Your task to perform on an android device: turn off location history Image 0: 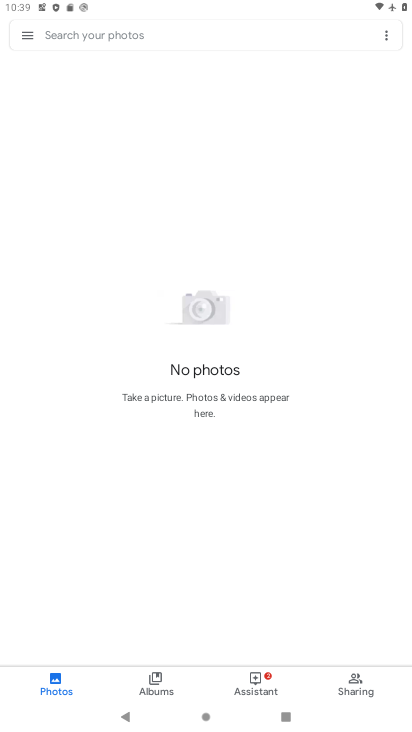
Step 0: task complete